Your task to perform on an android device: Search for Mexican restaurants on Maps Image 0: 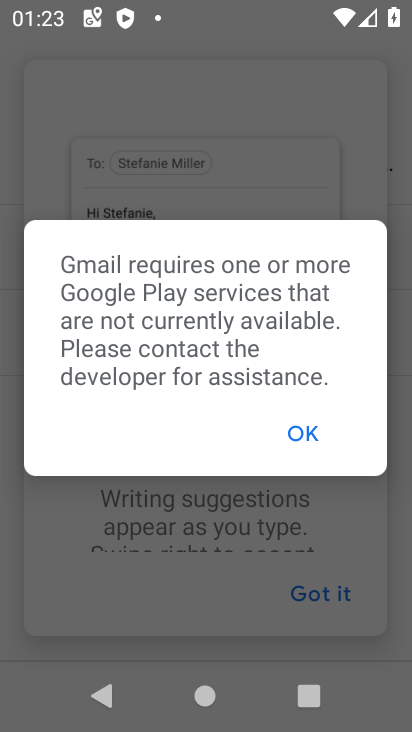
Step 0: press home button
Your task to perform on an android device: Search for Mexican restaurants on Maps Image 1: 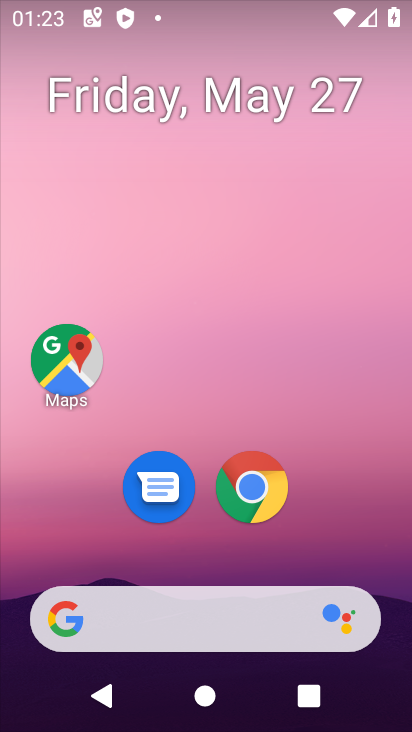
Step 1: click (56, 386)
Your task to perform on an android device: Search for Mexican restaurants on Maps Image 2: 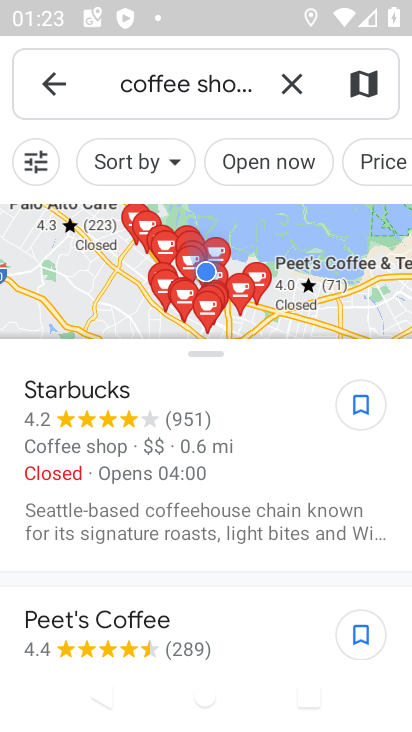
Step 2: click (290, 87)
Your task to perform on an android device: Search for Mexican restaurants on Maps Image 3: 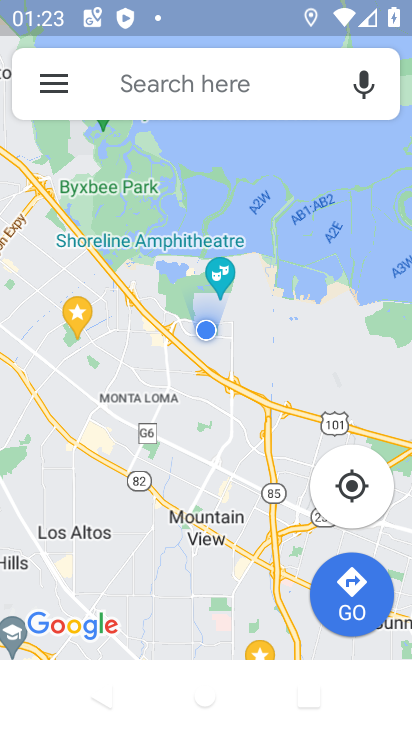
Step 3: click (196, 79)
Your task to perform on an android device: Search for Mexican restaurants on Maps Image 4: 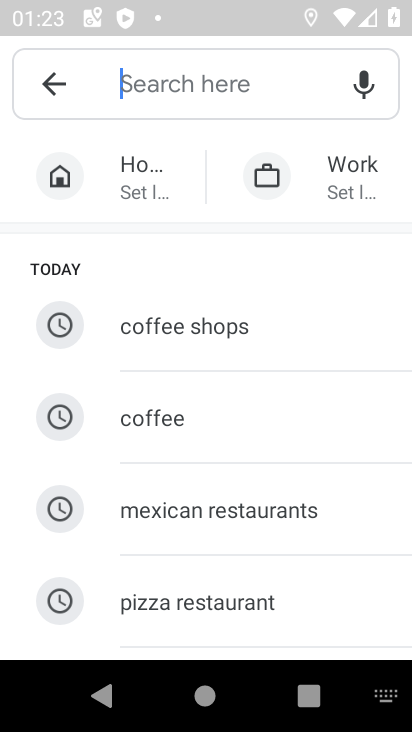
Step 4: click (224, 512)
Your task to perform on an android device: Search for Mexican restaurants on Maps Image 5: 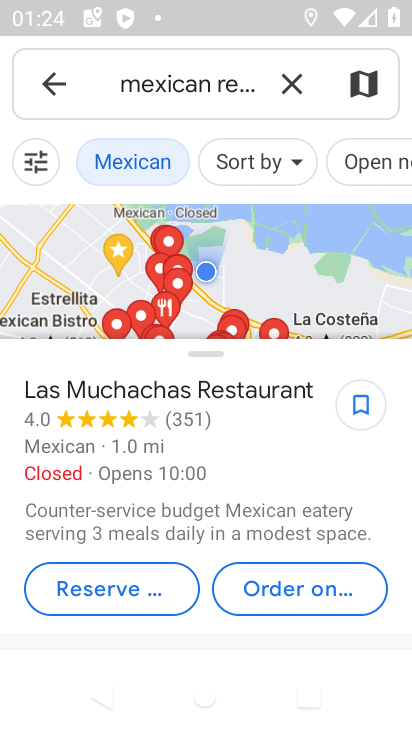
Step 5: task complete